Your task to perform on an android device: allow cookies in the chrome app Image 0: 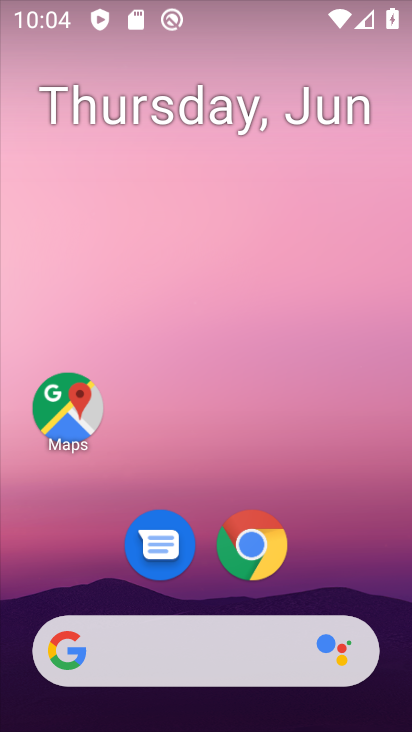
Step 0: click (246, 549)
Your task to perform on an android device: allow cookies in the chrome app Image 1: 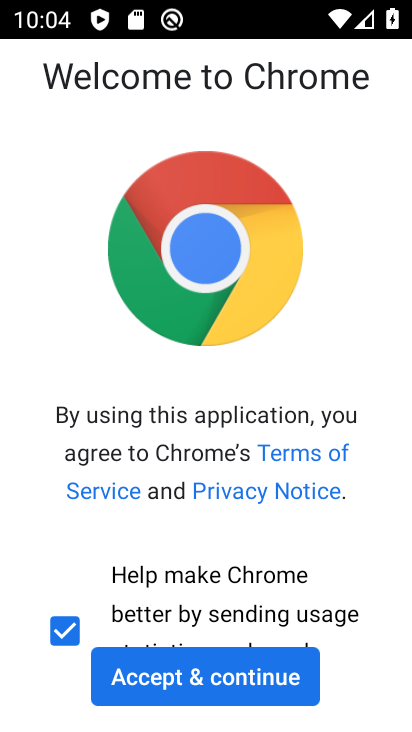
Step 1: click (236, 674)
Your task to perform on an android device: allow cookies in the chrome app Image 2: 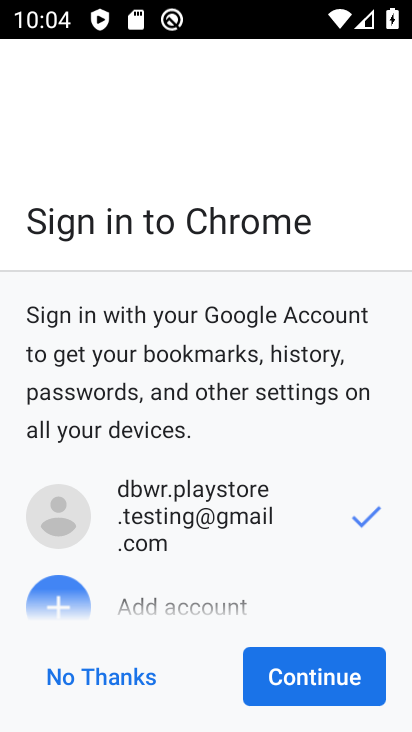
Step 2: click (312, 692)
Your task to perform on an android device: allow cookies in the chrome app Image 3: 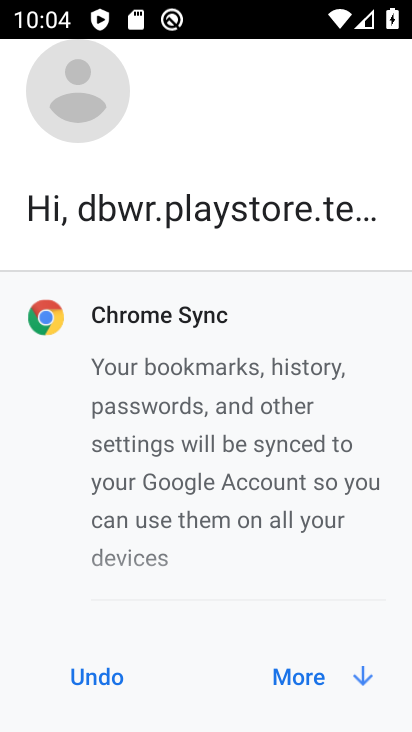
Step 3: click (315, 672)
Your task to perform on an android device: allow cookies in the chrome app Image 4: 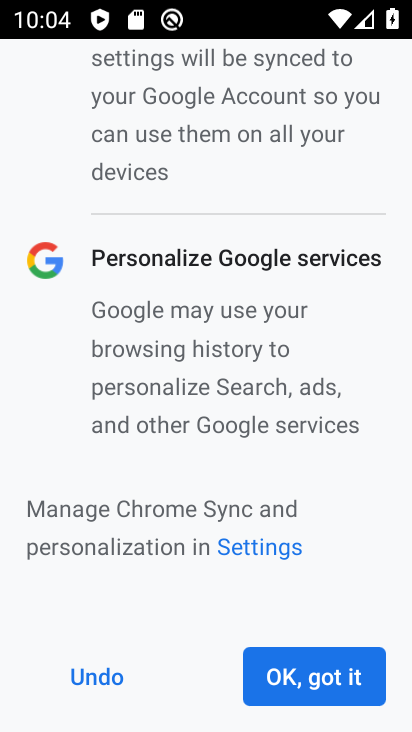
Step 4: click (315, 672)
Your task to perform on an android device: allow cookies in the chrome app Image 5: 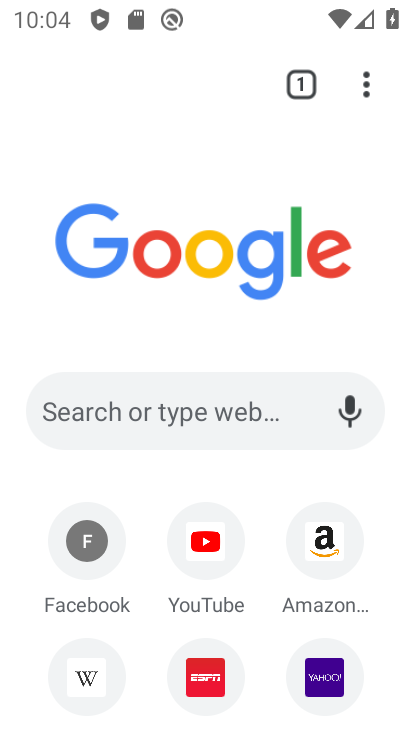
Step 5: click (373, 84)
Your task to perform on an android device: allow cookies in the chrome app Image 6: 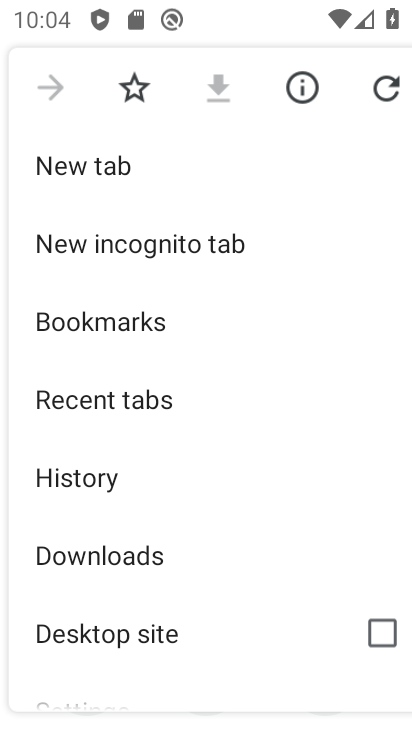
Step 6: drag from (172, 568) to (236, 200)
Your task to perform on an android device: allow cookies in the chrome app Image 7: 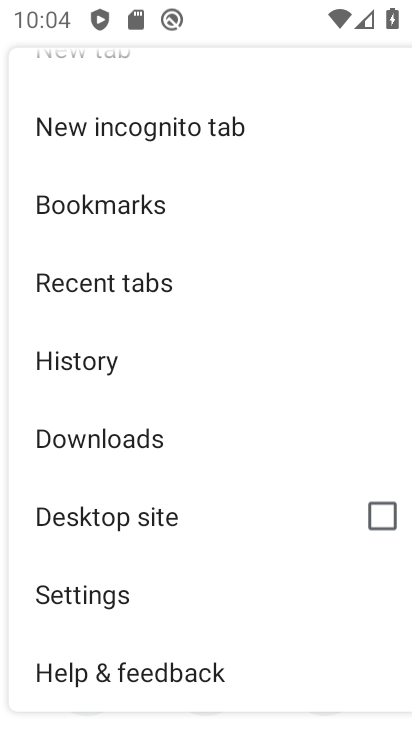
Step 7: click (100, 607)
Your task to perform on an android device: allow cookies in the chrome app Image 8: 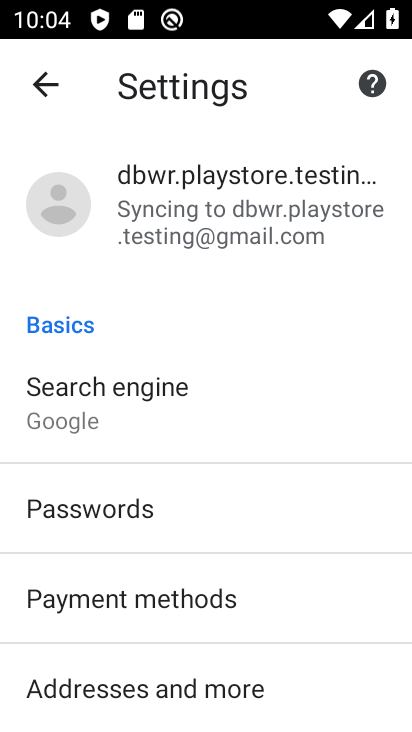
Step 8: drag from (150, 628) to (184, 393)
Your task to perform on an android device: allow cookies in the chrome app Image 9: 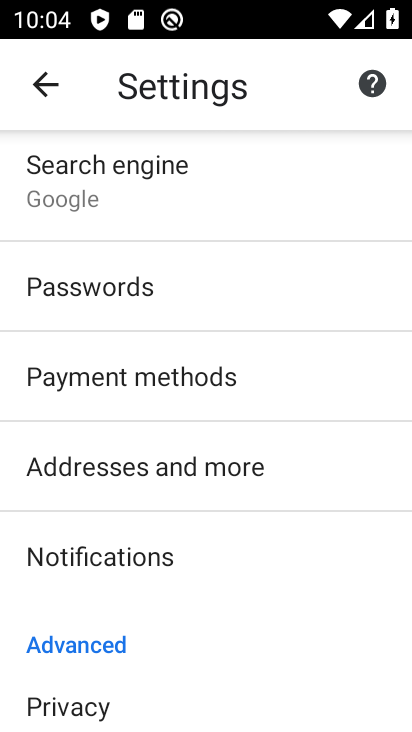
Step 9: drag from (151, 647) to (195, 363)
Your task to perform on an android device: allow cookies in the chrome app Image 10: 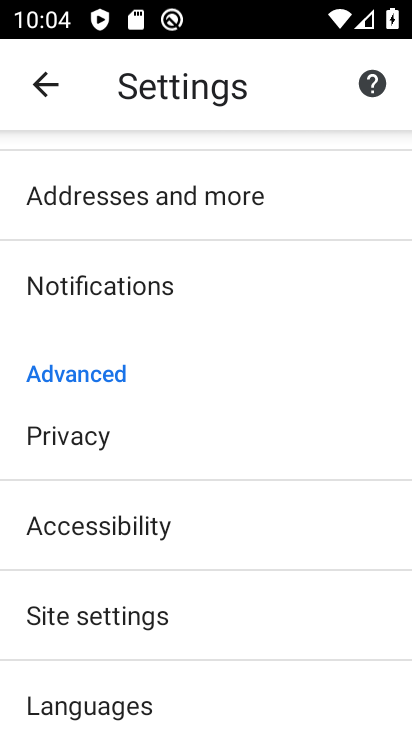
Step 10: click (120, 614)
Your task to perform on an android device: allow cookies in the chrome app Image 11: 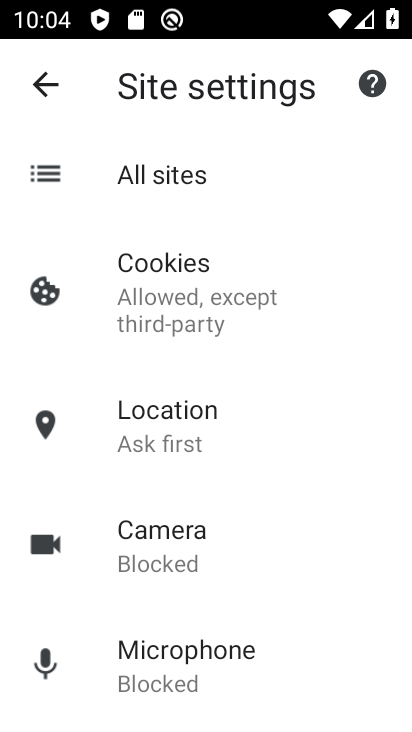
Step 11: click (201, 292)
Your task to perform on an android device: allow cookies in the chrome app Image 12: 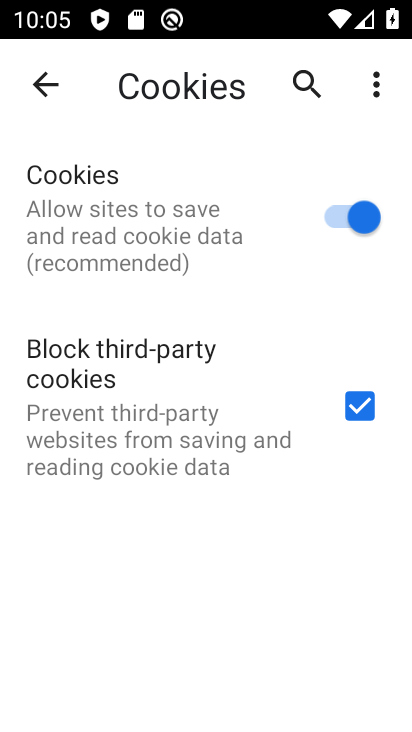
Step 12: task complete